Your task to perform on an android device: open app "HBO Max: Stream TV & Movies" (install if not already installed) and go to login screen Image 0: 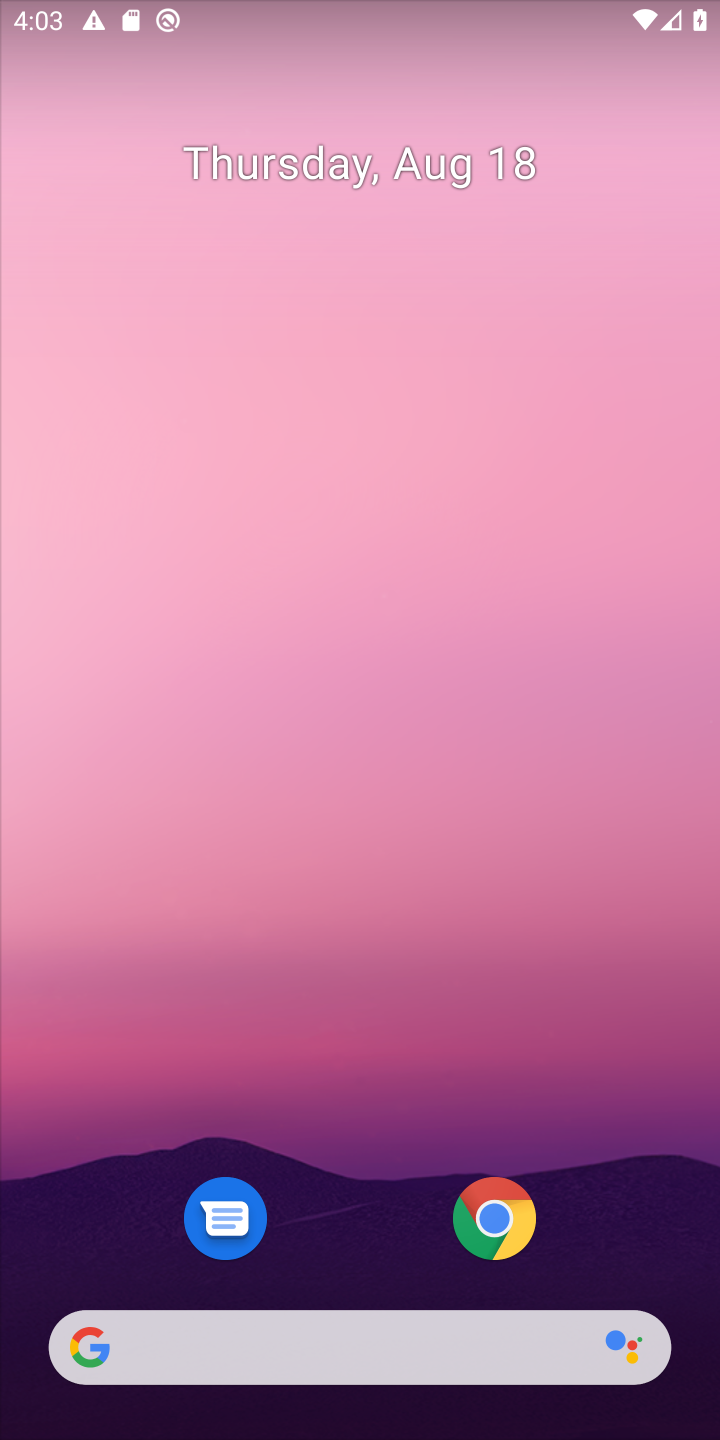
Step 0: drag from (385, 1116) to (457, 405)
Your task to perform on an android device: open app "HBO Max: Stream TV & Movies" (install if not already installed) and go to login screen Image 1: 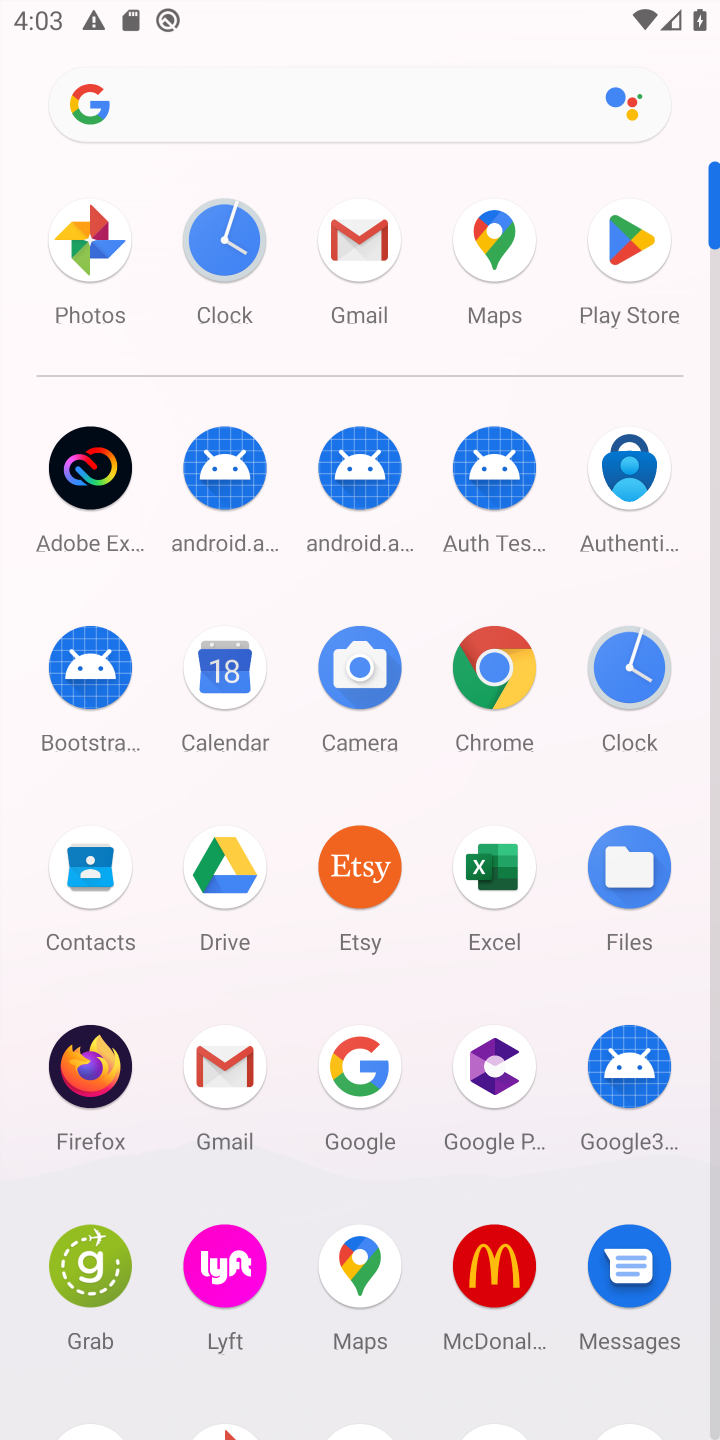
Step 1: click (612, 284)
Your task to perform on an android device: open app "HBO Max: Stream TV & Movies" (install if not already installed) and go to login screen Image 2: 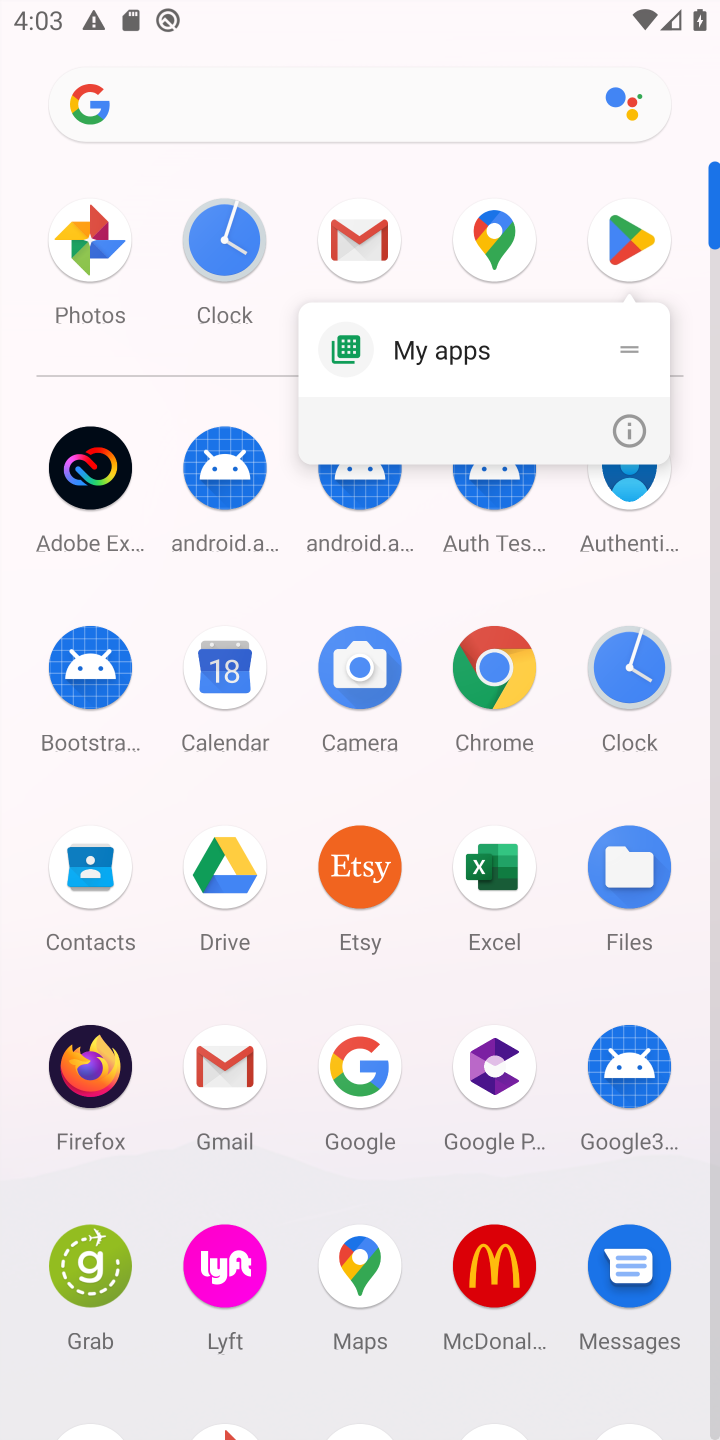
Step 2: click (610, 227)
Your task to perform on an android device: open app "HBO Max: Stream TV & Movies" (install if not already installed) and go to login screen Image 3: 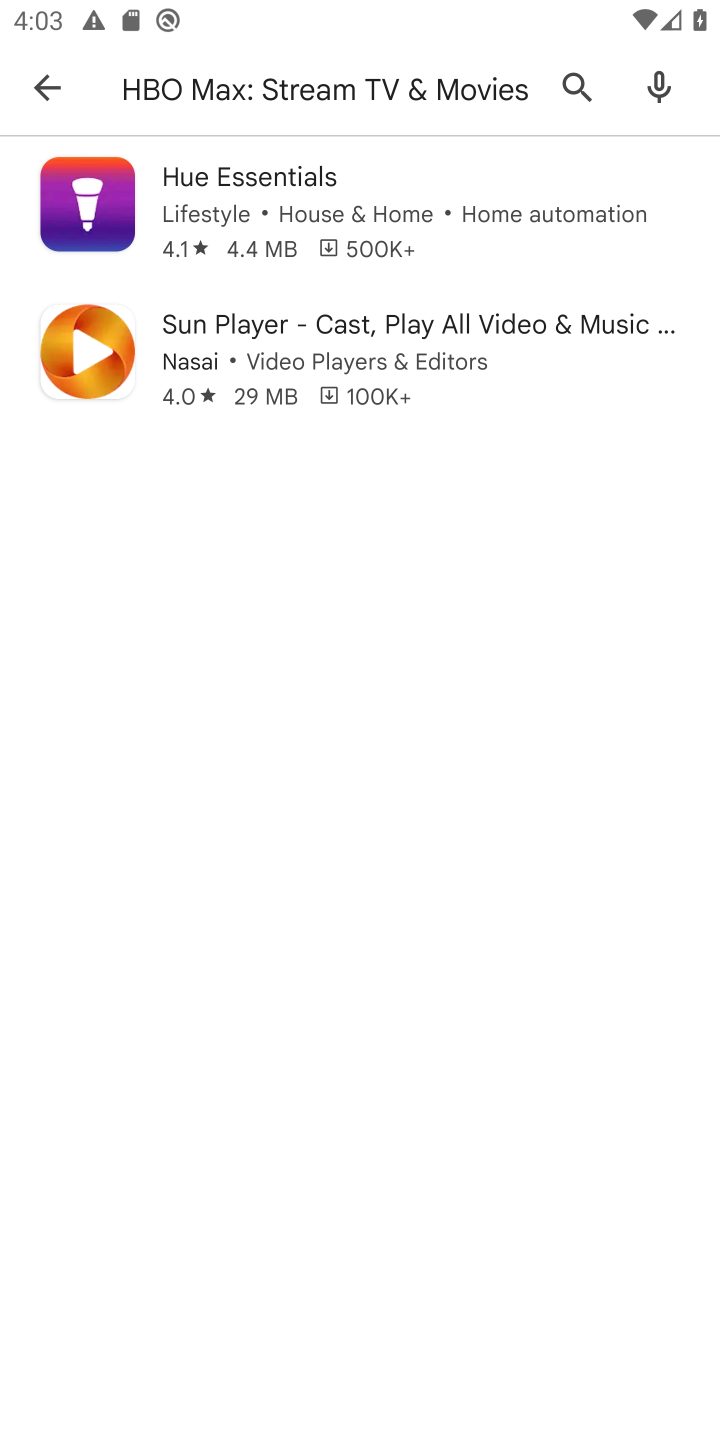
Step 3: task complete